Your task to perform on an android device: What's on my calendar today? Image 0: 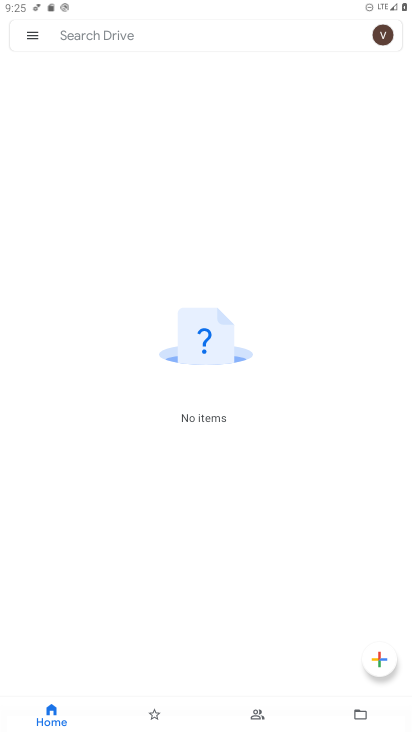
Step 0: press home button
Your task to perform on an android device: What's on my calendar today? Image 1: 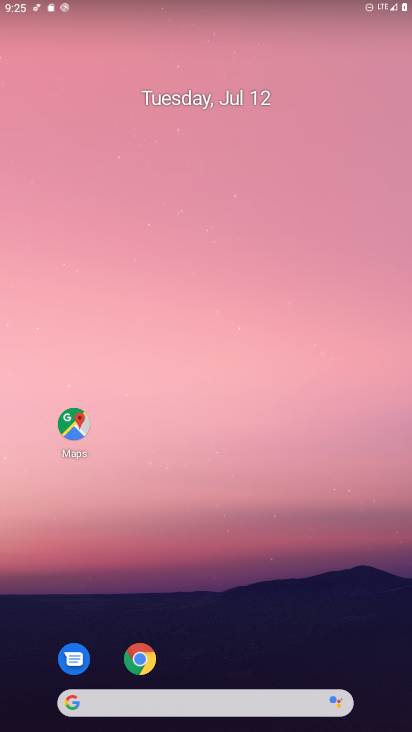
Step 1: drag from (216, 708) to (176, 246)
Your task to perform on an android device: What's on my calendar today? Image 2: 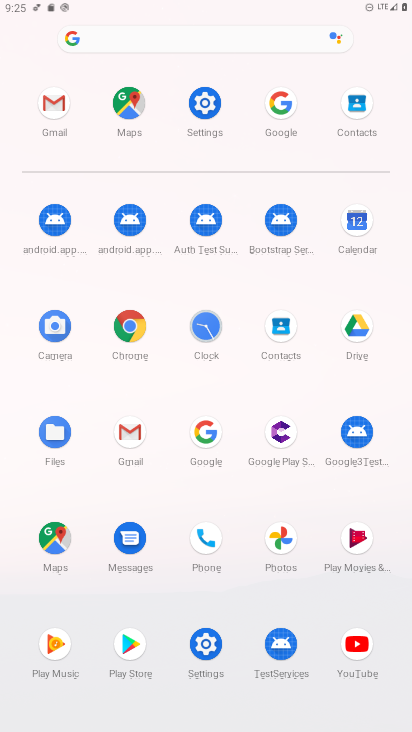
Step 2: click (358, 219)
Your task to perform on an android device: What's on my calendar today? Image 3: 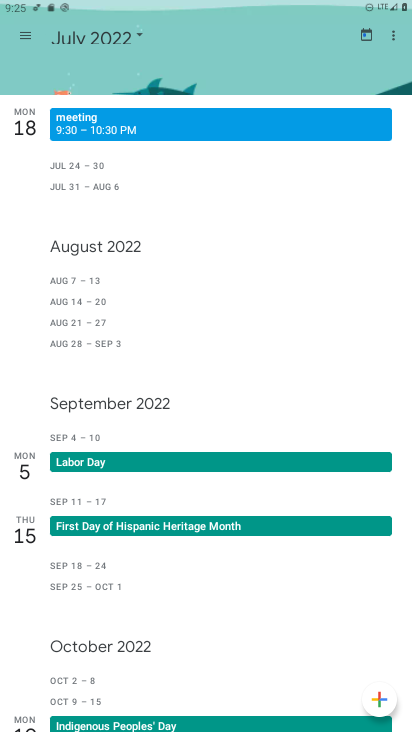
Step 3: click (368, 37)
Your task to perform on an android device: What's on my calendar today? Image 4: 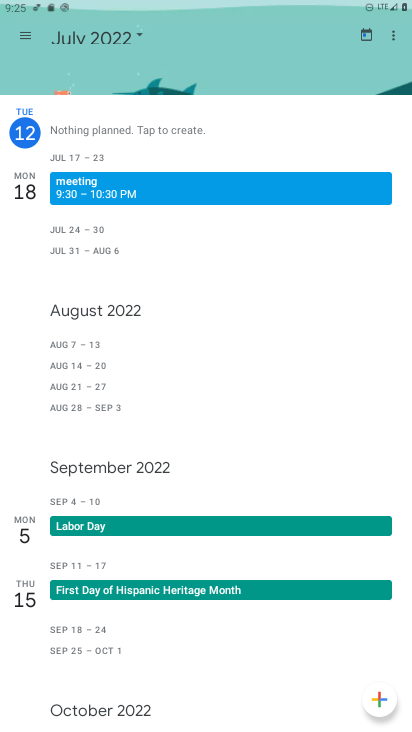
Step 4: click (24, 41)
Your task to perform on an android device: What's on my calendar today? Image 5: 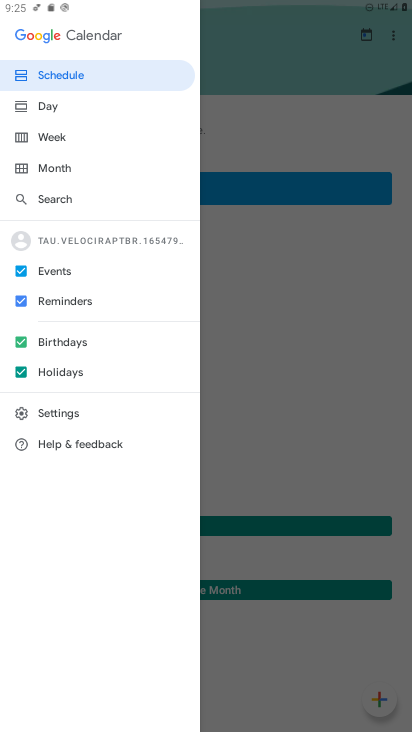
Step 5: click (84, 77)
Your task to perform on an android device: What's on my calendar today? Image 6: 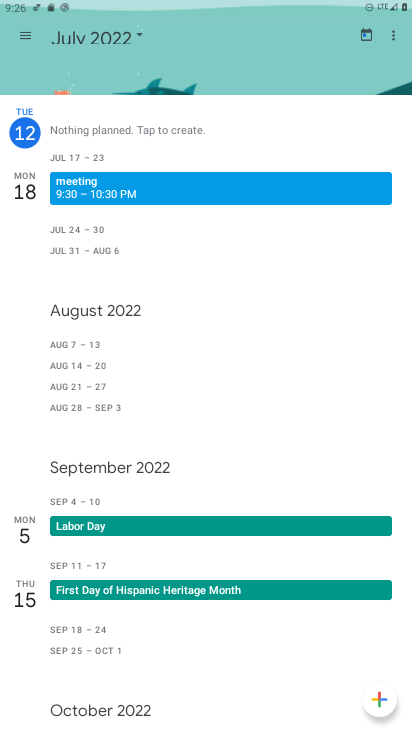
Step 6: task complete